Your task to perform on an android device: turn off translation in the chrome app Image 0: 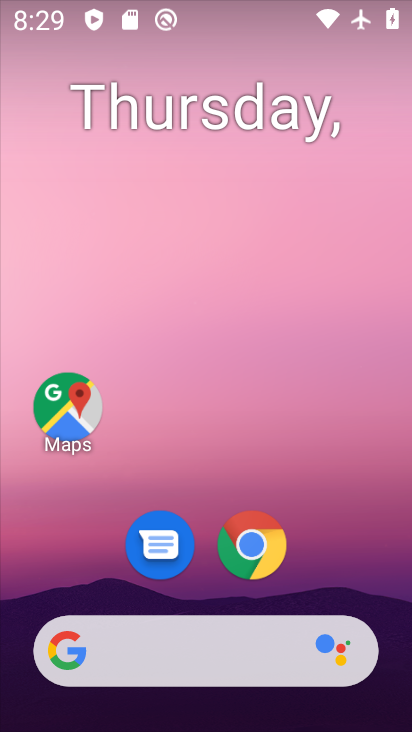
Step 0: drag from (285, 597) to (274, 132)
Your task to perform on an android device: turn off translation in the chrome app Image 1: 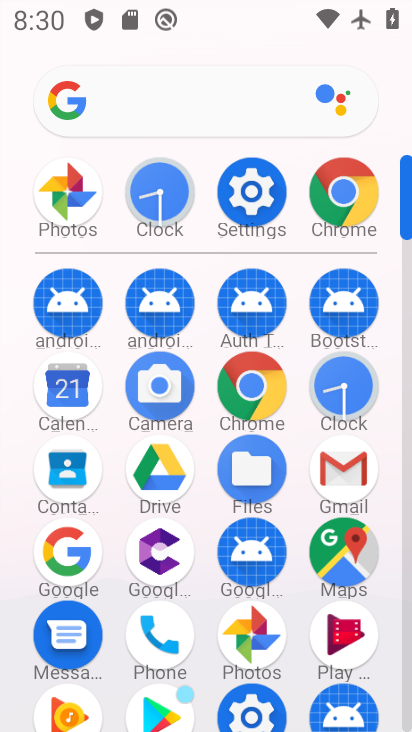
Step 1: click (342, 171)
Your task to perform on an android device: turn off translation in the chrome app Image 2: 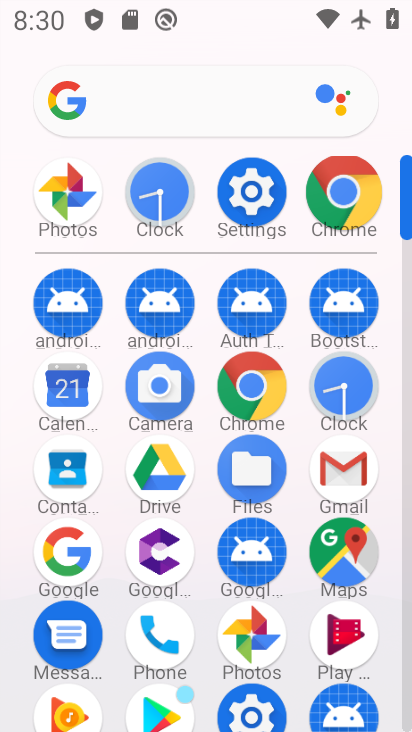
Step 2: click (342, 171)
Your task to perform on an android device: turn off translation in the chrome app Image 3: 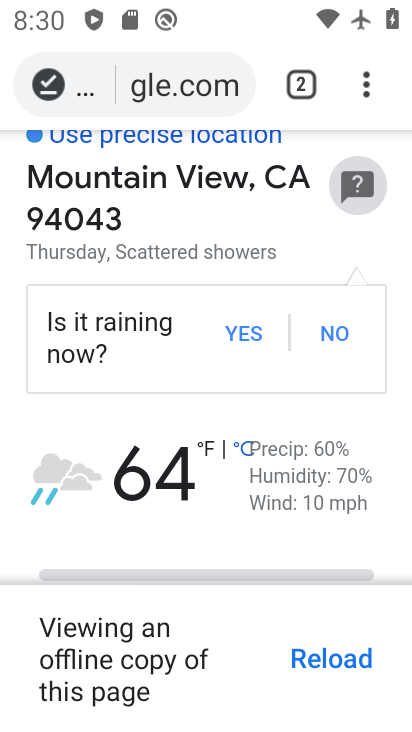
Step 3: click (369, 85)
Your task to perform on an android device: turn off translation in the chrome app Image 4: 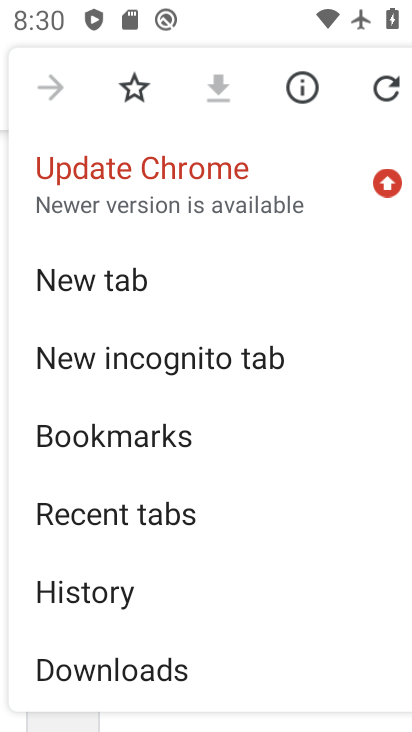
Step 4: drag from (188, 514) to (280, 156)
Your task to perform on an android device: turn off translation in the chrome app Image 5: 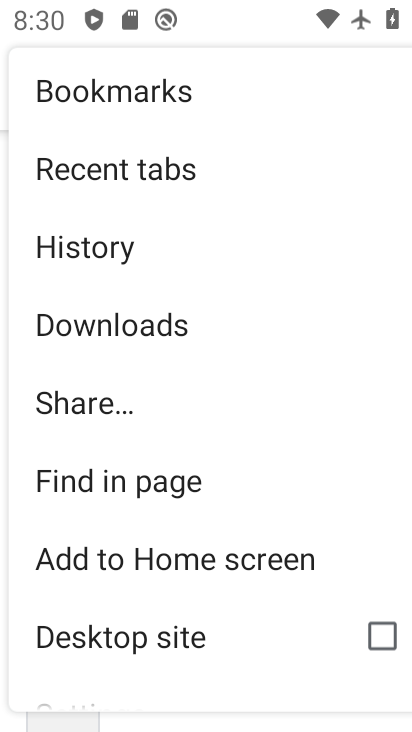
Step 5: drag from (157, 659) to (255, 244)
Your task to perform on an android device: turn off translation in the chrome app Image 6: 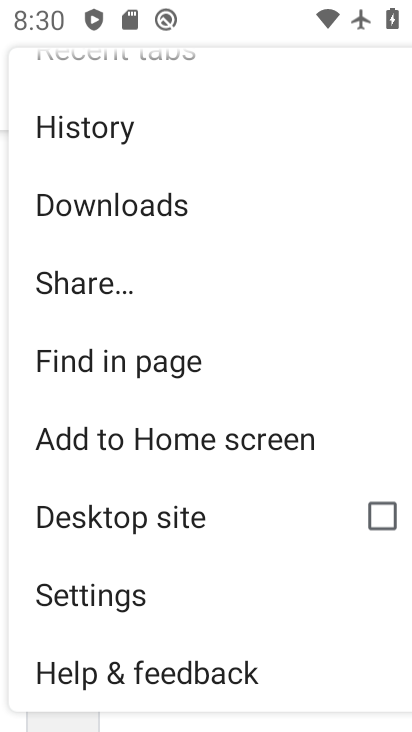
Step 6: click (137, 596)
Your task to perform on an android device: turn off translation in the chrome app Image 7: 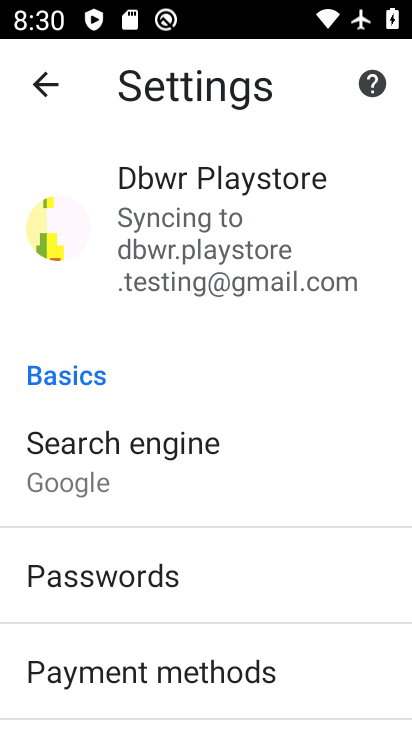
Step 7: drag from (103, 606) to (225, 112)
Your task to perform on an android device: turn off translation in the chrome app Image 8: 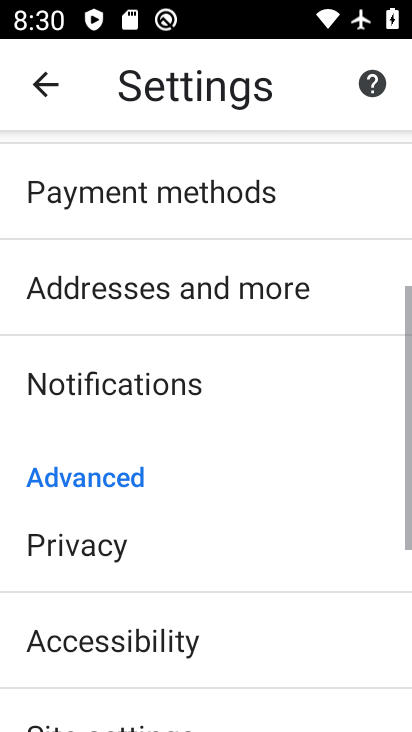
Step 8: drag from (150, 584) to (249, 196)
Your task to perform on an android device: turn off translation in the chrome app Image 9: 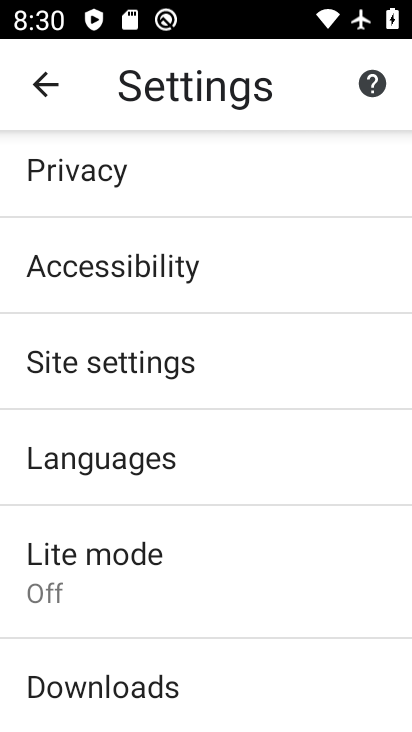
Step 9: click (139, 457)
Your task to perform on an android device: turn off translation in the chrome app Image 10: 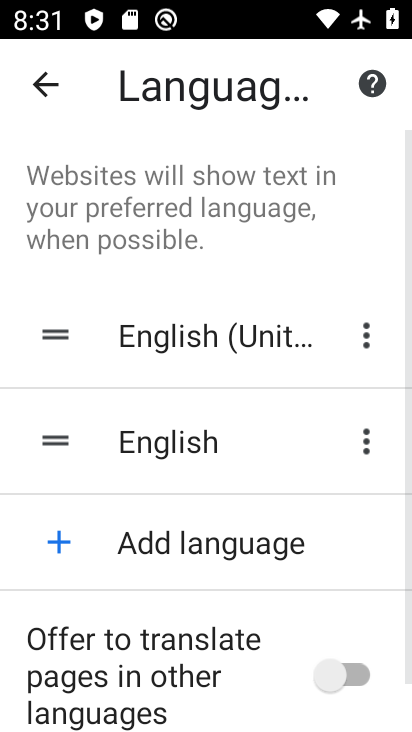
Step 10: task complete